Your task to perform on an android device: toggle data saver in the chrome app Image 0: 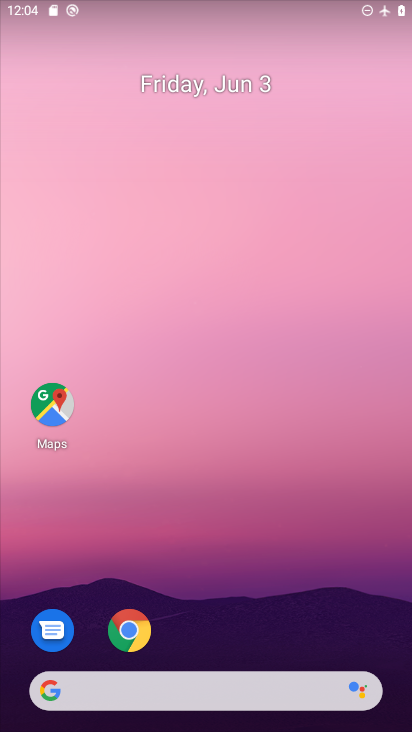
Step 0: drag from (252, 634) to (188, 194)
Your task to perform on an android device: toggle data saver in the chrome app Image 1: 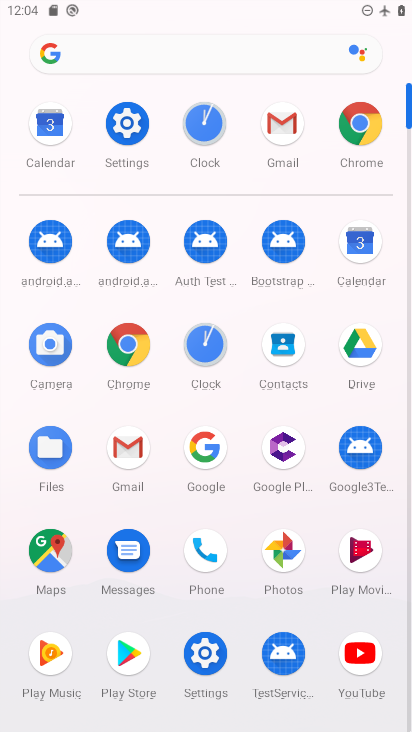
Step 1: click (360, 123)
Your task to perform on an android device: toggle data saver in the chrome app Image 2: 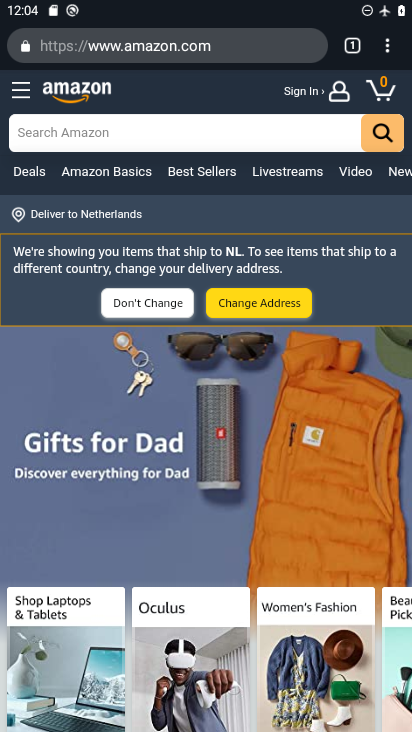
Step 2: click (397, 43)
Your task to perform on an android device: toggle data saver in the chrome app Image 3: 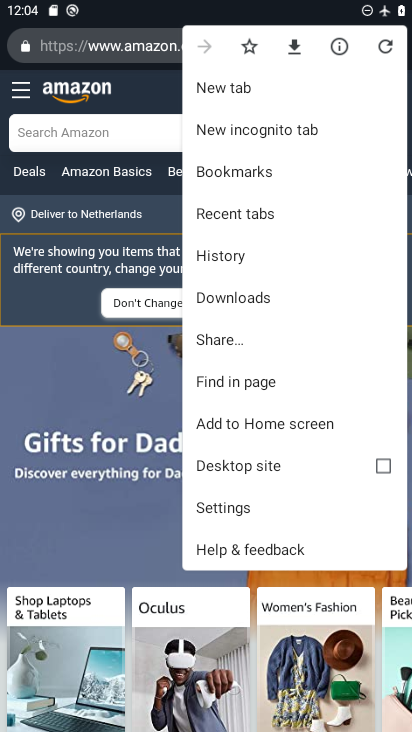
Step 3: click (272, 503)
Your task to perform on an android device: toggle data saver in the chrome app Image 4: 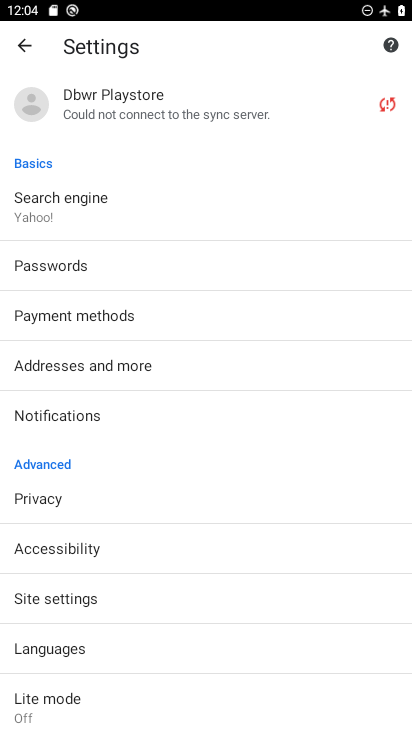
Step 4: drag from (178, 622) to (144, 412)
Your task to perform on an android device: toggle data saver in the chrome app Image 5: 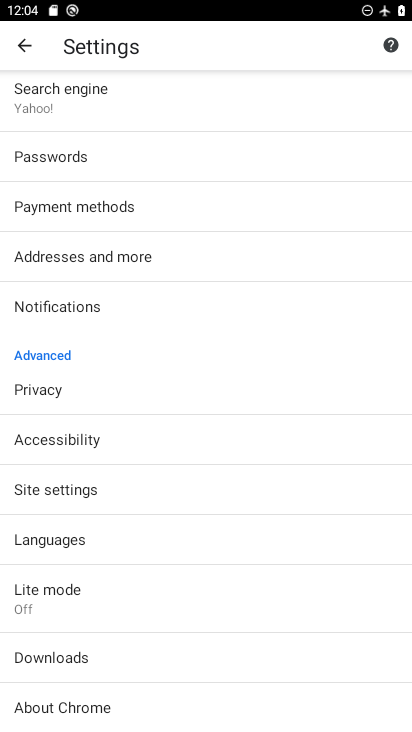
Step 5: click (122, 586)
Your task to perform on an android device: toggle data saver in the chrome app Image 6: 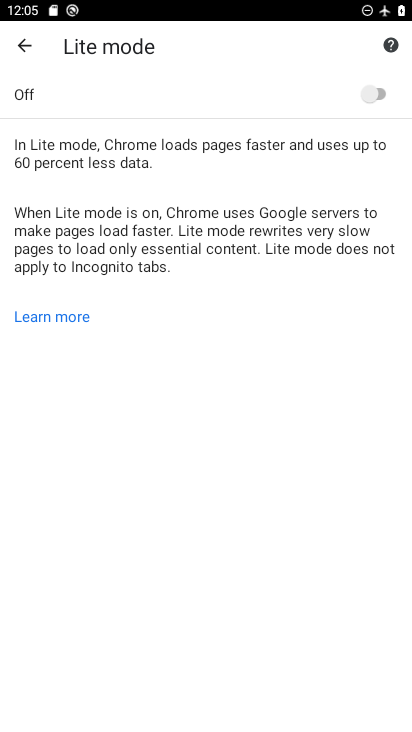
Step 6: click (380, 98)
Your task to perform on an android device: toggle data saver in the chrome app Image 7: 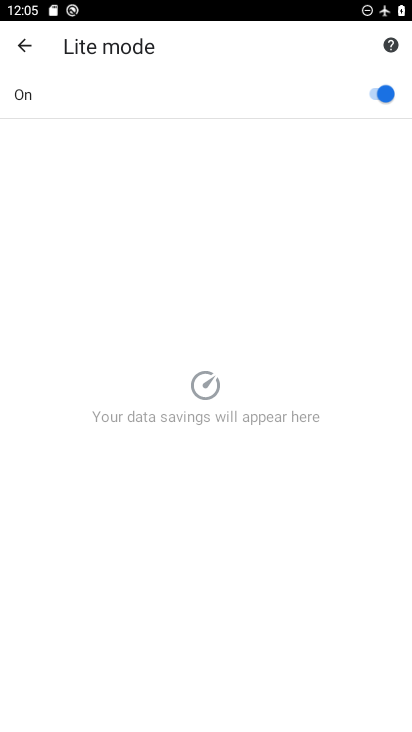
Step 7: task complete